Your task to perform on an android device: toggle improve location accuracy Image 0: 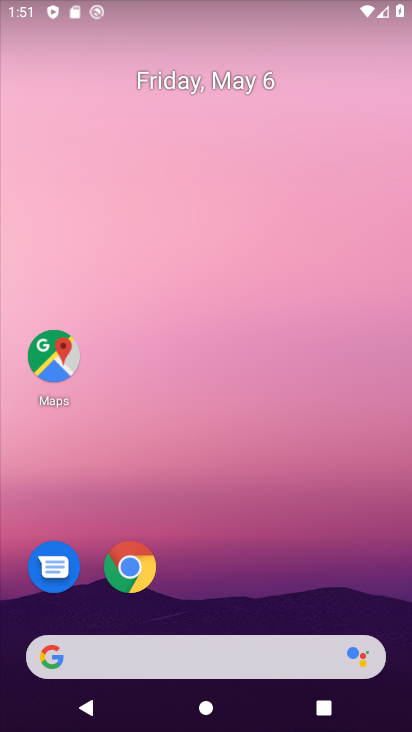
Step 0: drag from (396, 625) to (335, 139)
Your task to perform on an android device: toggle improve location accuracy Image 1: 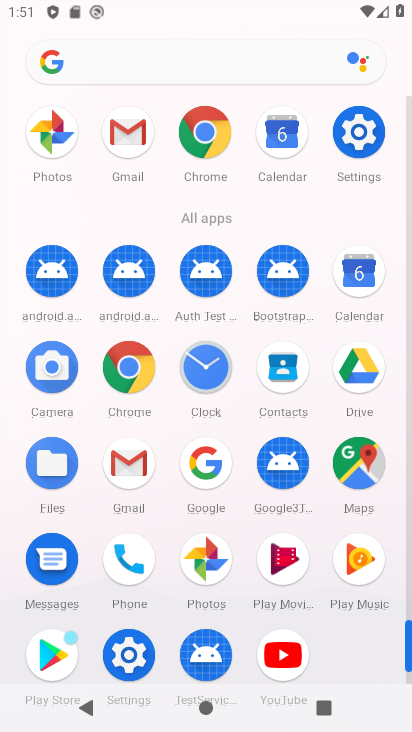
Step 1: click (129, 656)
Your task to perform on an android device: toggle improve location accuracy Image 2: 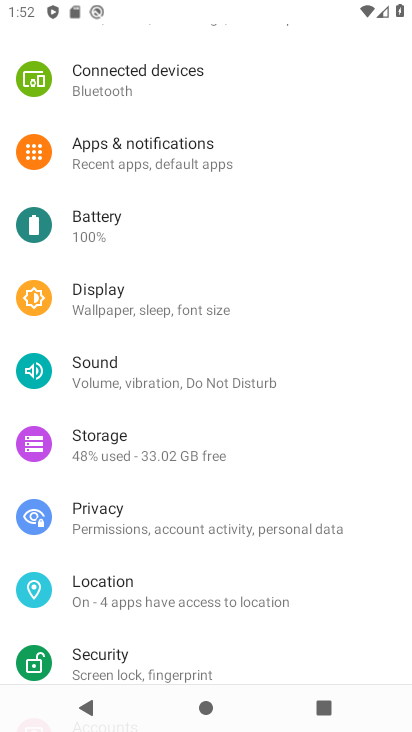
Step 2: click (107, 594)
Your task to perform on an android device: toggle improve location accuracy Image 3: 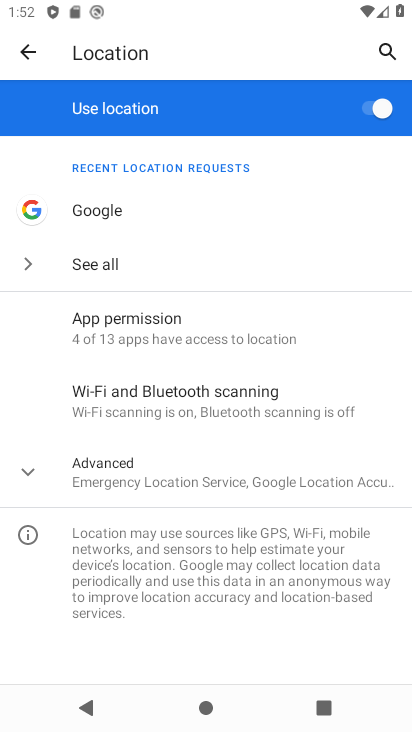
Step 3: click (34, 475)
Your task to perform on an android device: toggle improve location accuracy Image 4: 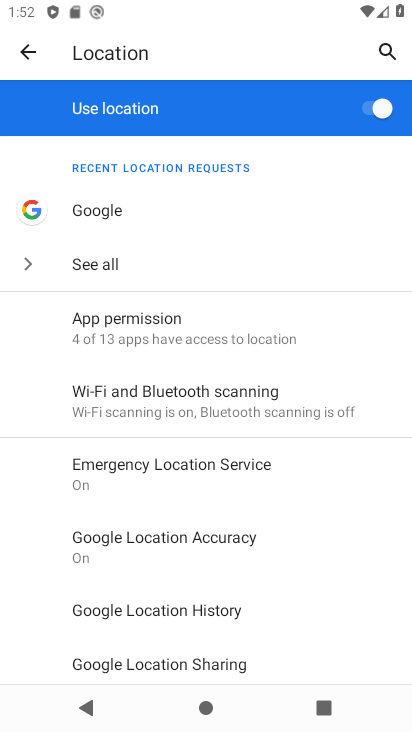
Step 4: click (128, 530)
Your task to perform on an android device: toggle improve location accuracy Image 5: 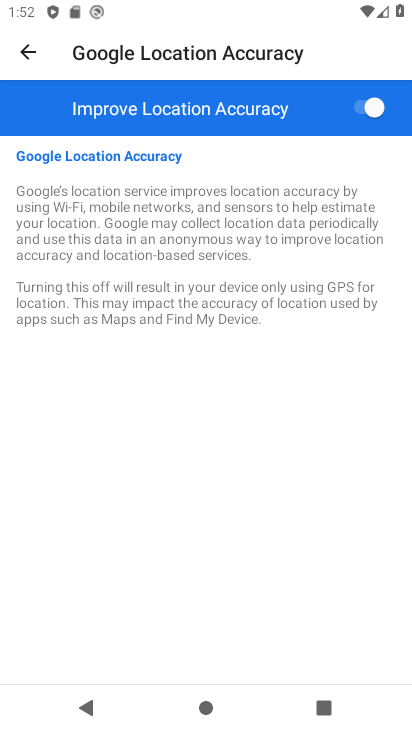
Step 5: click (354, 103)
Your task to perform on an android device: toggle improve location accuracy Image 6: 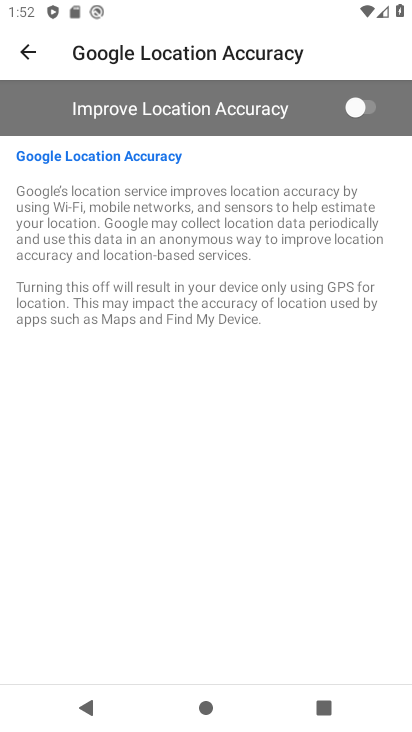
Step 6: task complete